Your task to perform on an android device: read, delete, or share a saved page in the chrome app Image 0: 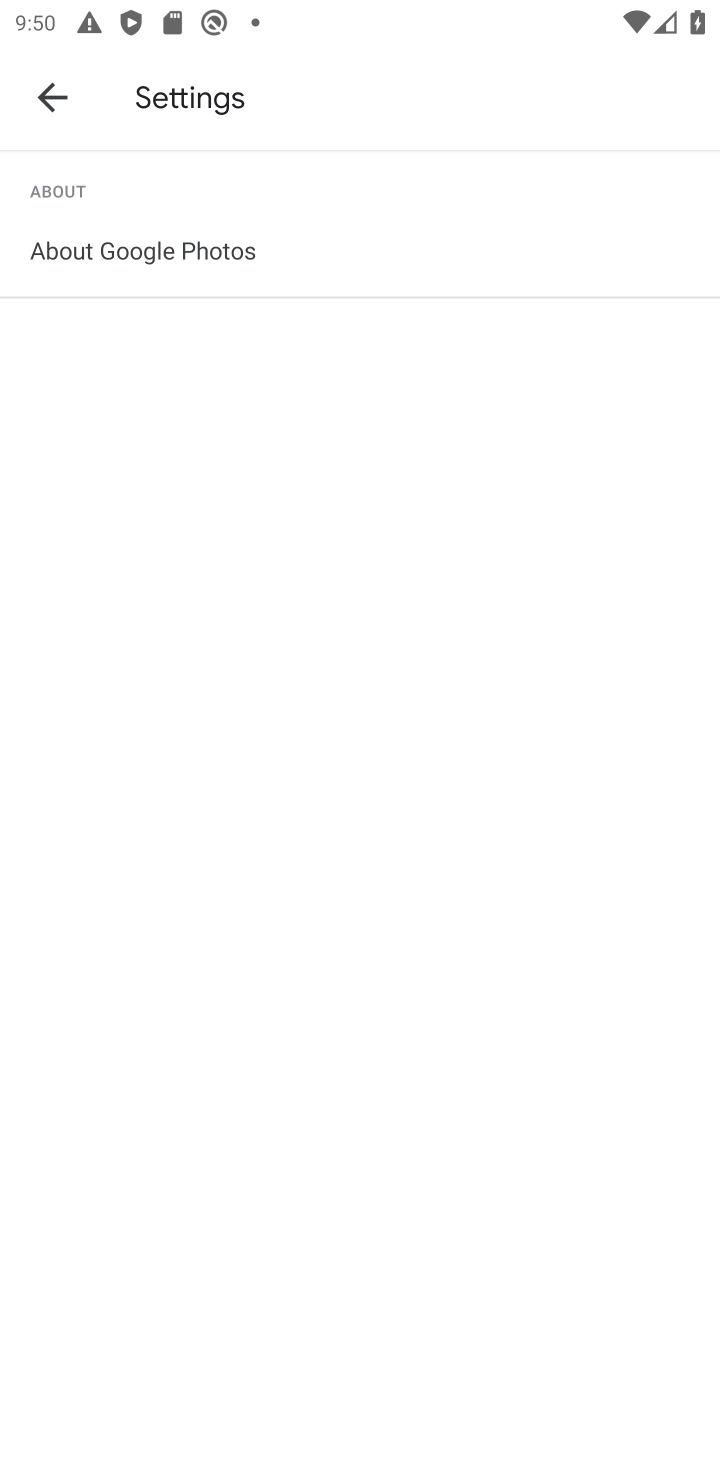
Step 0: press home button
Your task to perform on an android device: read, delete, or share a saved page in the chrome app Image 1: 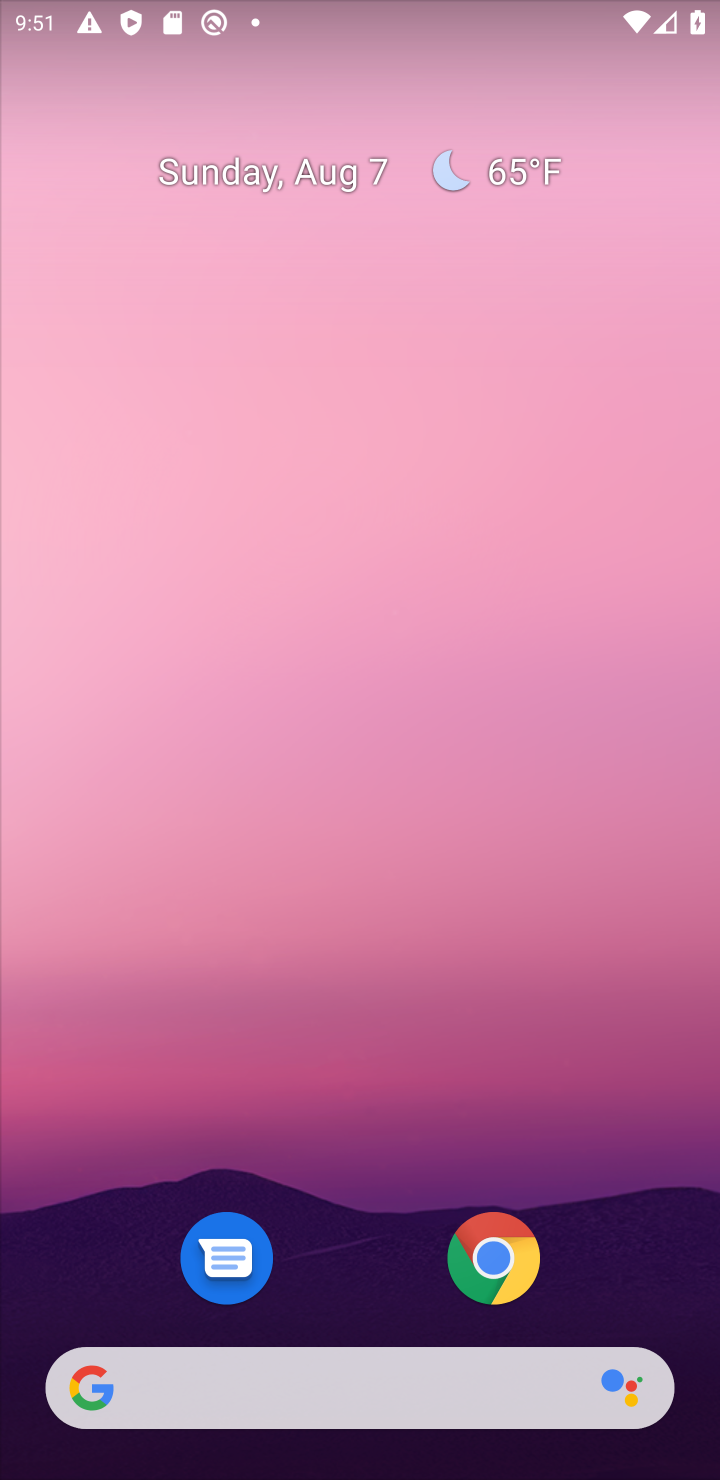
Step 1: drag from (360, 1230) to (292, 579)
Your task to perform on an android device: read, delete, or share a saved page in the chrome app Image 2: 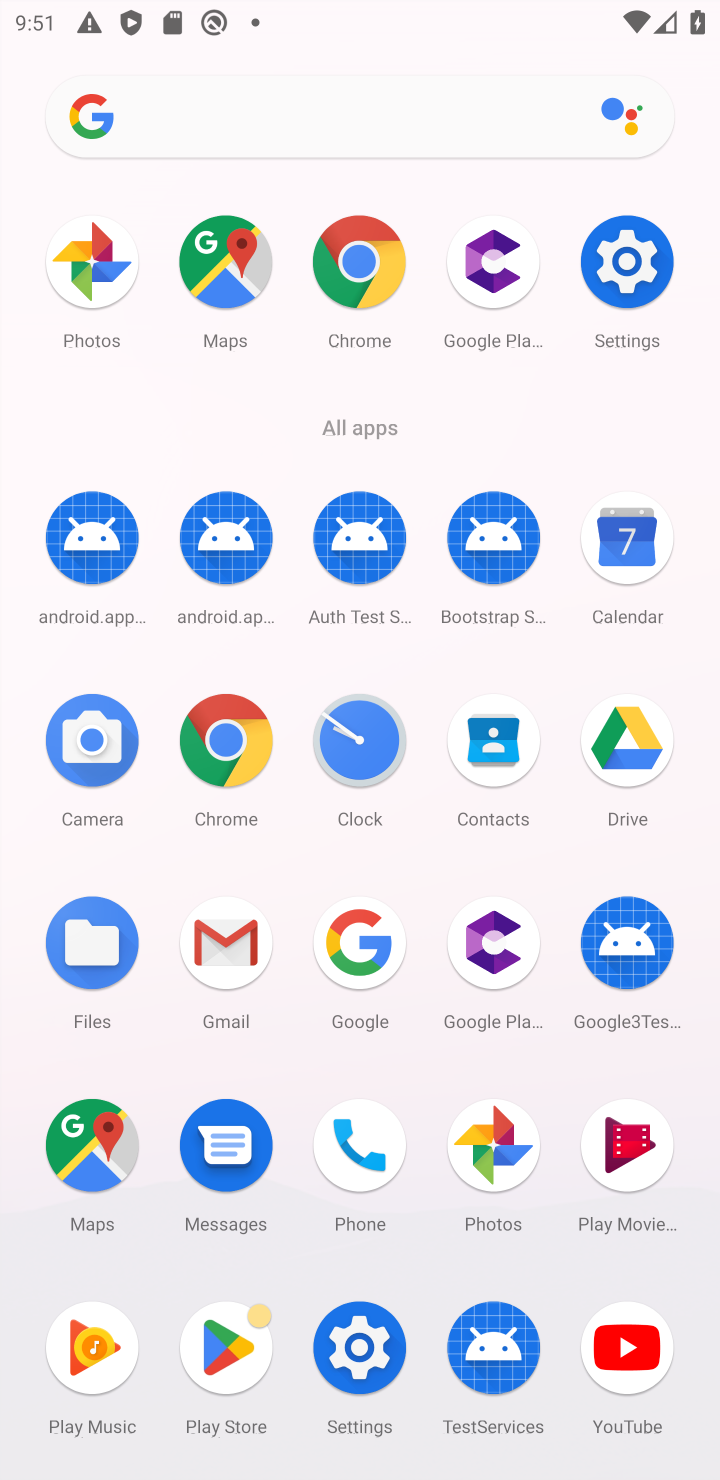
Step 2: click (343, 305)
Your task to perform on an android device: read, delete, or share a saved page in the chrome app Image 3: 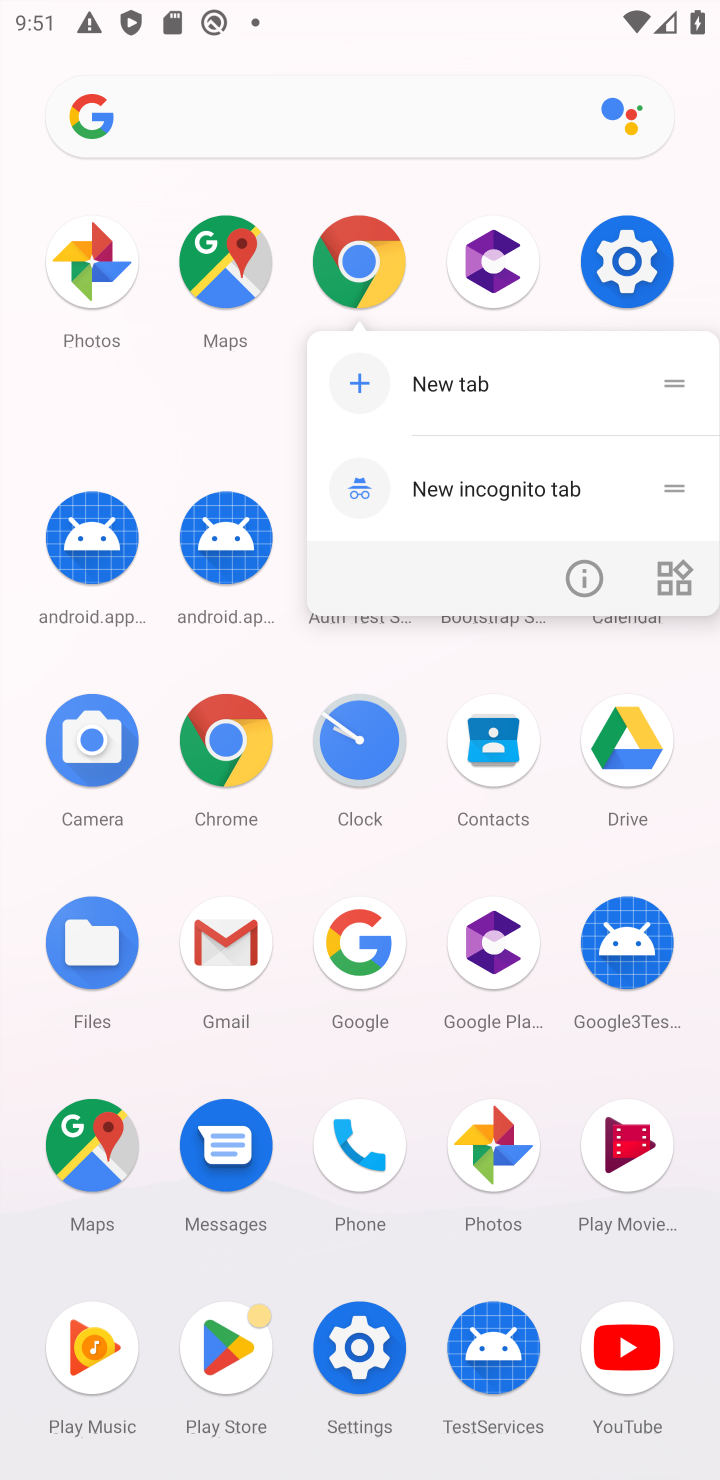
Step 3: click (363, 267)
Your task to perform on an android device: read, delete, or share a saved page in the chrome app Image 4: 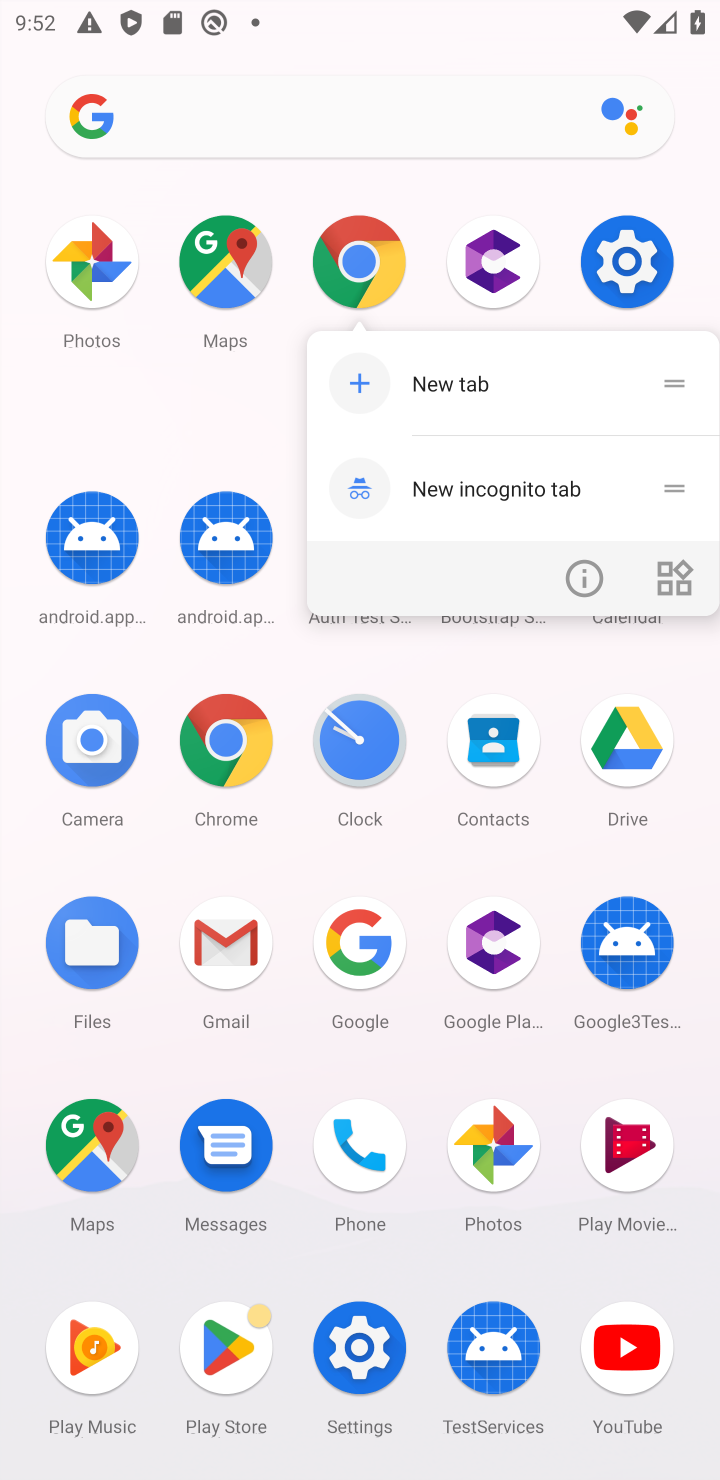
Step 4: click (247, 790)
Your task to perform on an android device: read, delete, or share a saved page in the chrome app Image 5: 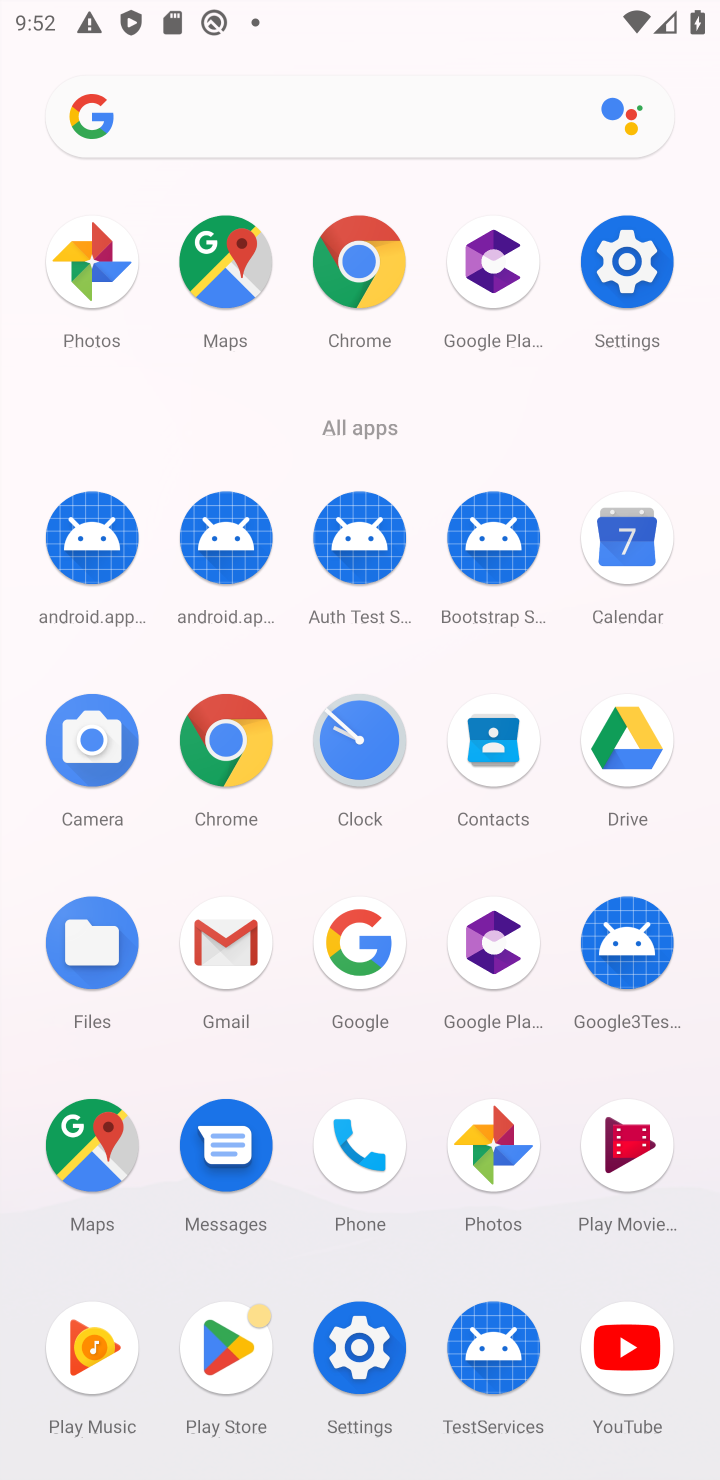
Step 5: click (230, 797)
Your task to perform on an android device: read, delete, or share a saved page in the chrome app Image 6: 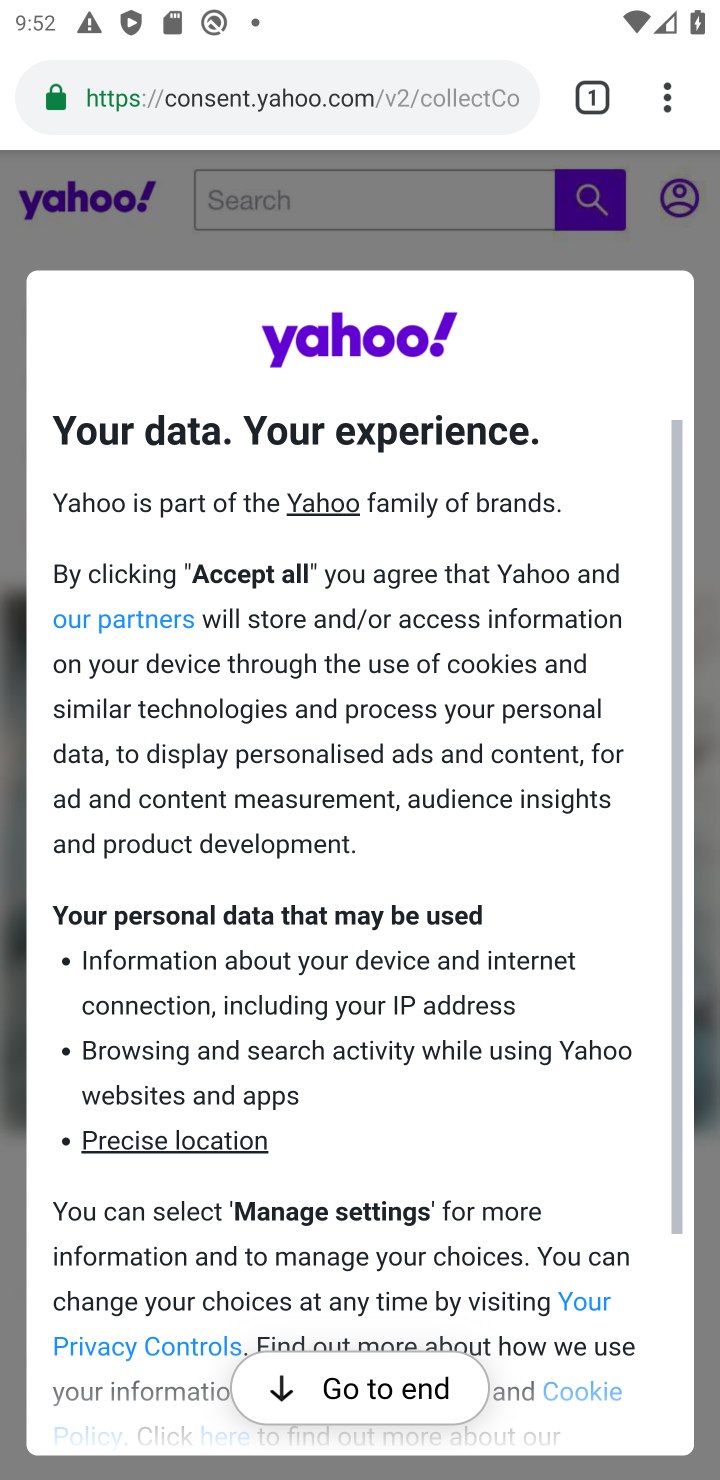
Step 6: drag from (673, 84) to (317, 745)
Your task to perform on an android device: read, delete, or share a saved page in the chrome app Image 7: 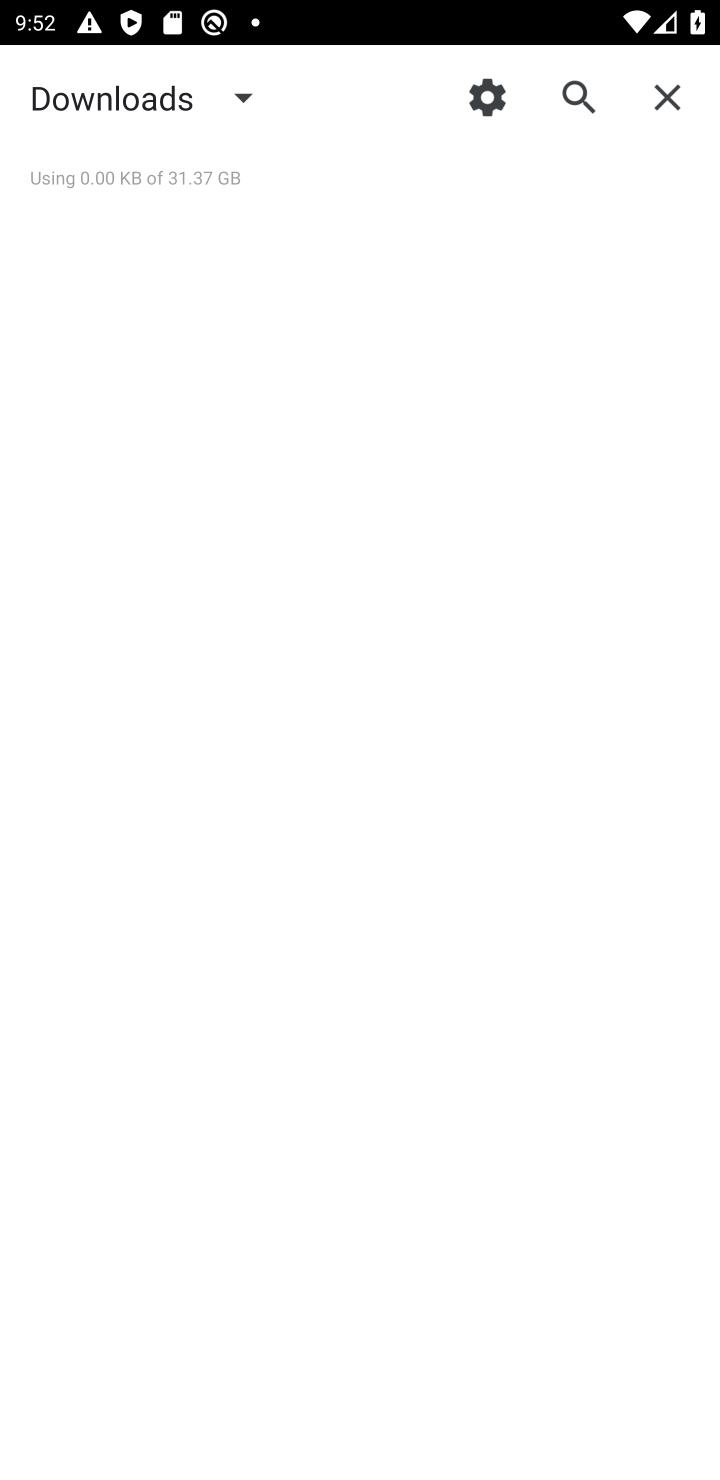
Step 7: click (239, 102)
Your task to perform on an android device: read, delete, or share a saved page in the chrome app Image 8: 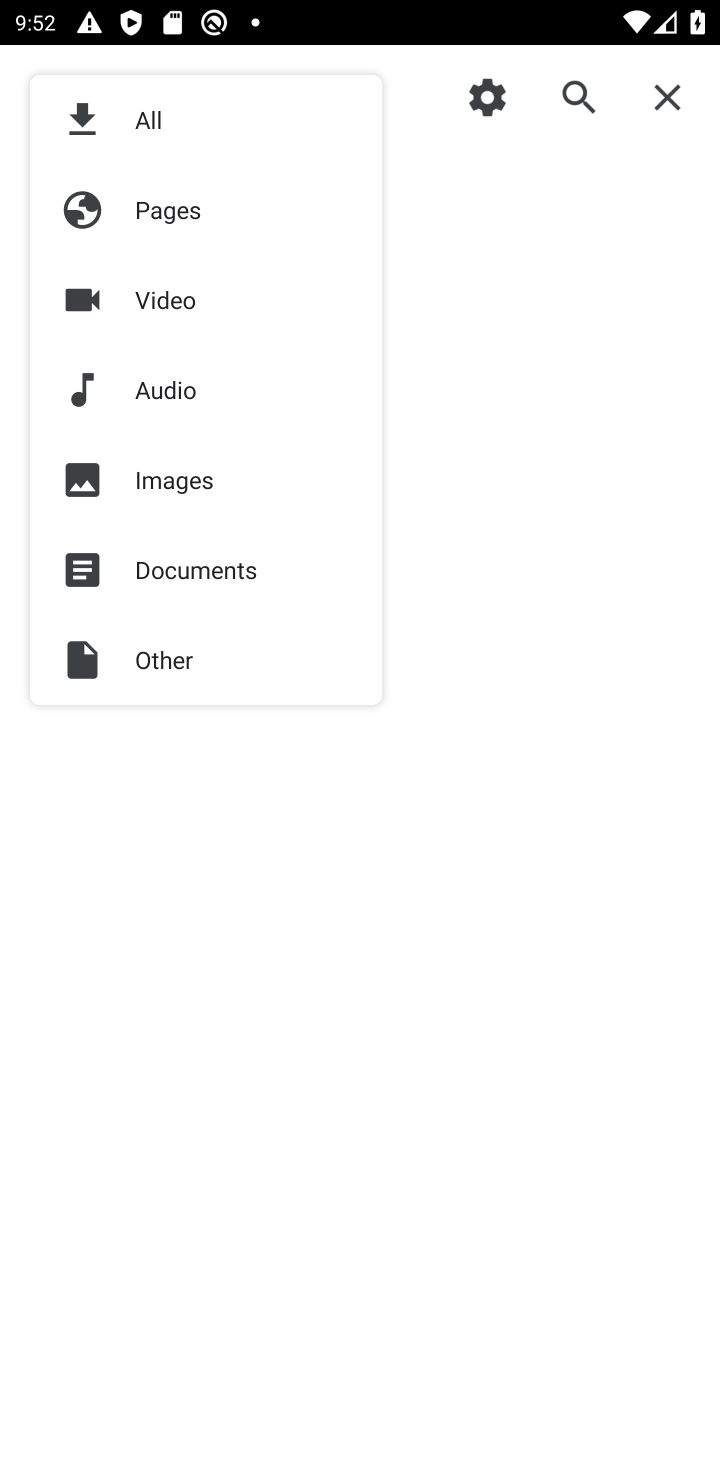
Step 8: click (119, 207)
Your task to perform on an android device: read, delete, or share a saved page in the chrome app Image 9: 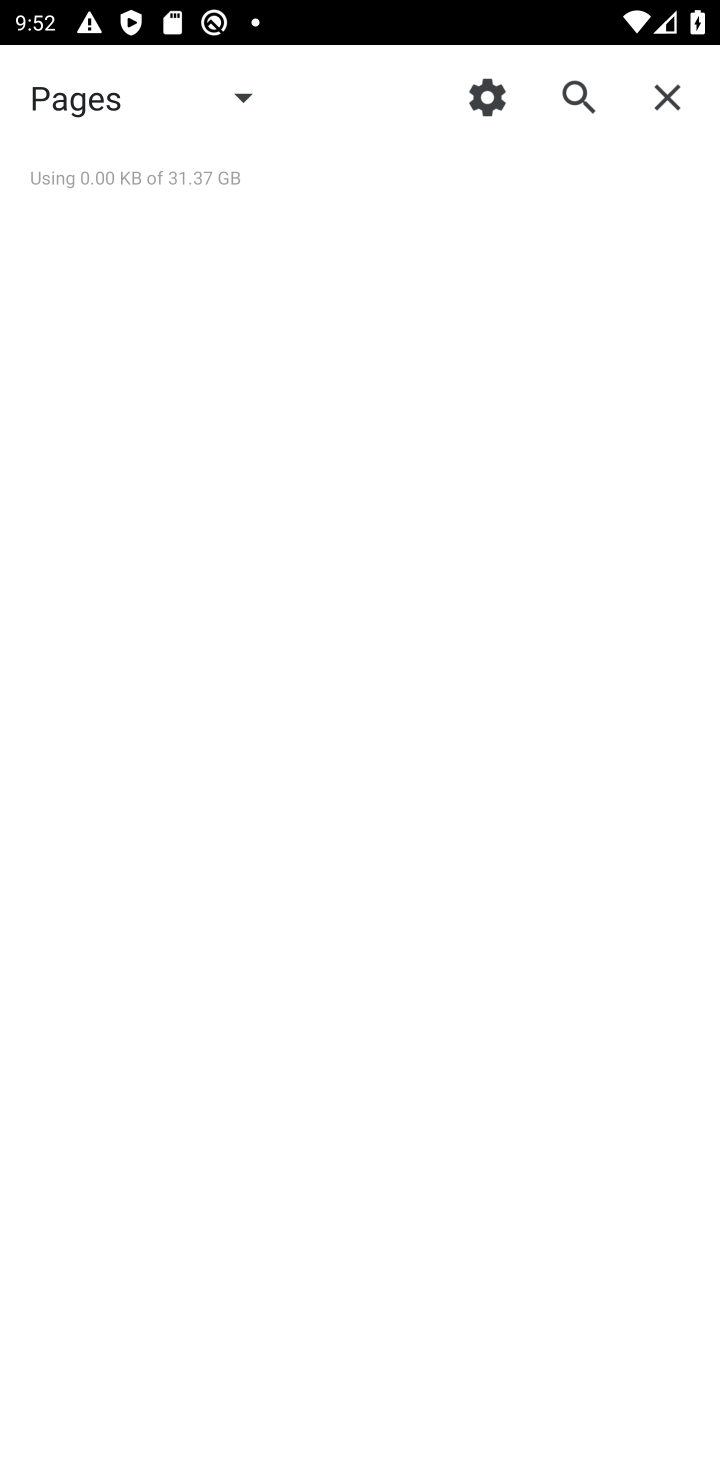
Step 9: task complete